Your task to perform on an android device: Show me recent news Image 0: 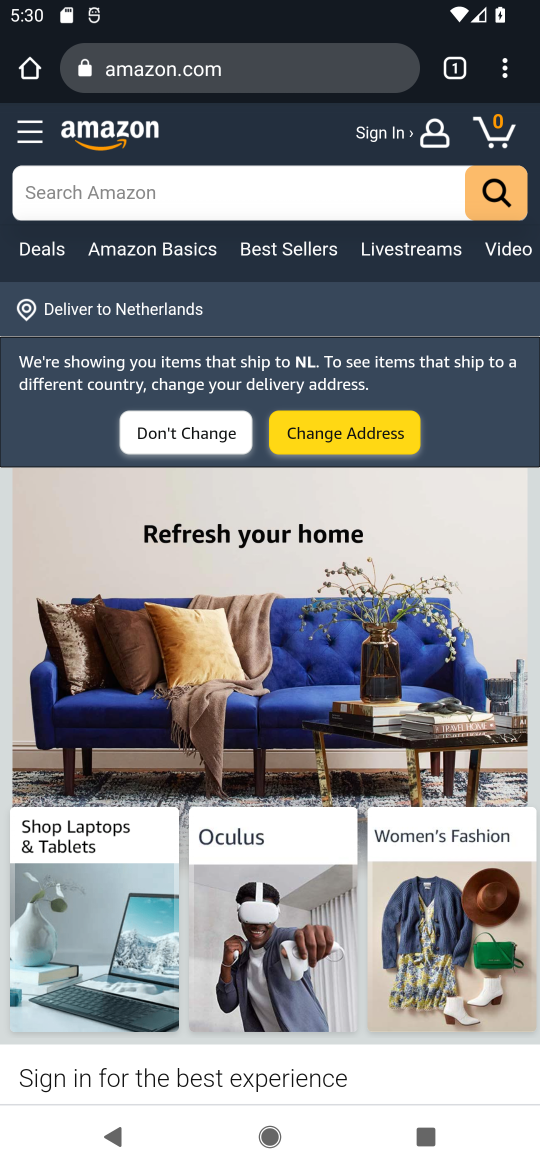
Step 0: press home button
Your task to perform on an android device: Show me recent news Image 1: 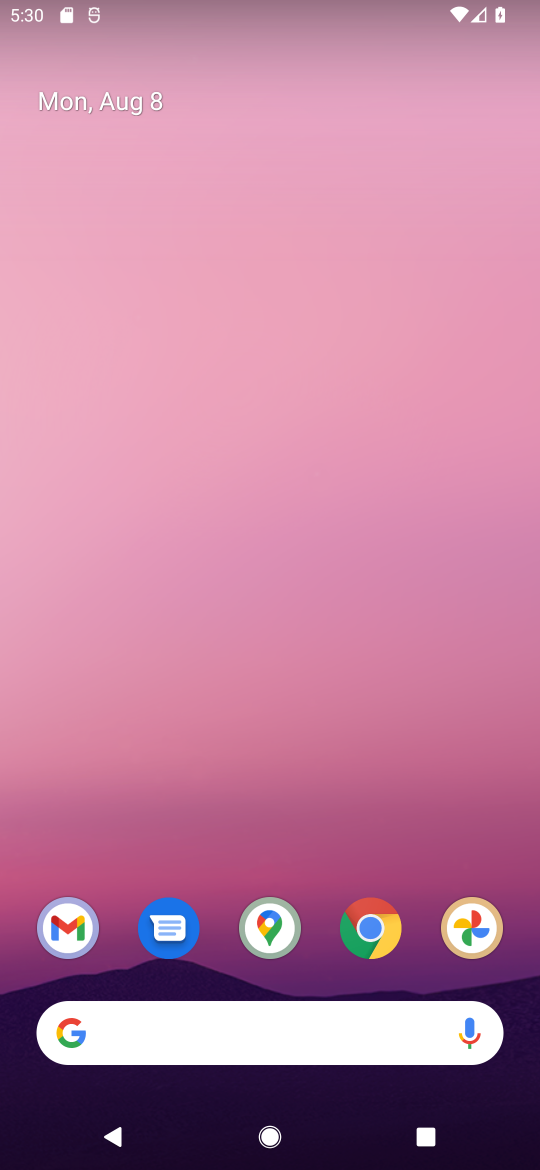
Step 1: click (247, 1029)
Your task to perform on an android device: Show me recent news Image 2: 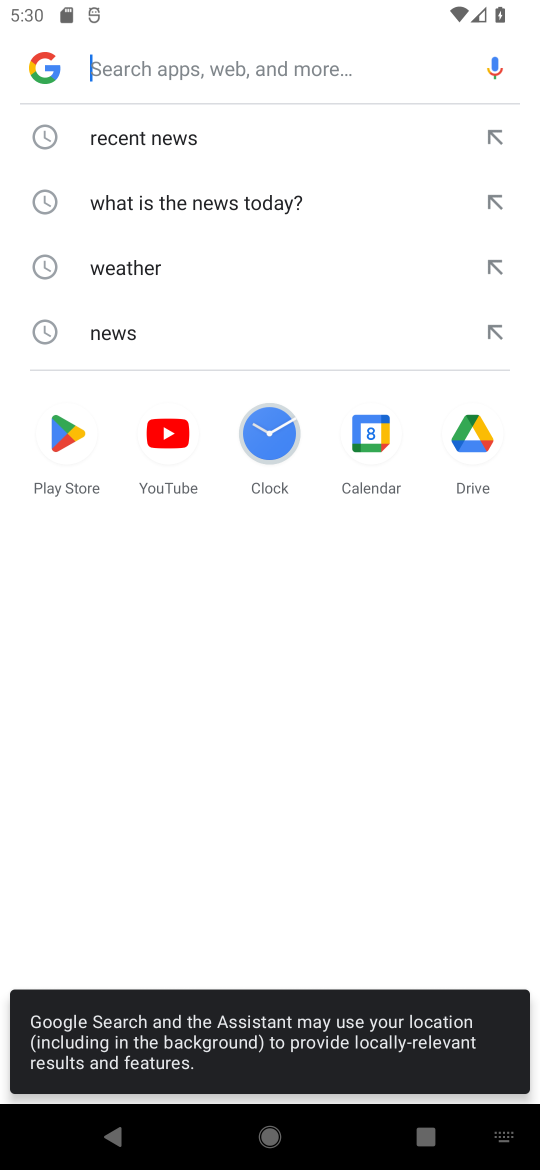
Step 2: click (159, 126)
Your task to perform on an android device: Show me recent news Image 3: 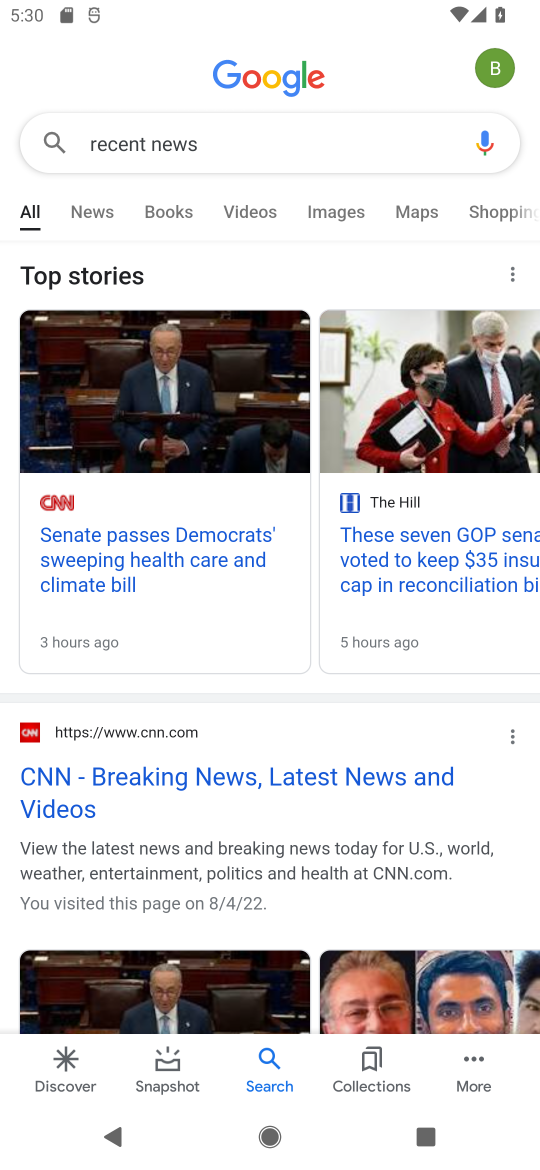
Step 3: task complete